Your task to perform on an android device: open app "File Manager" (install if not already installed) Image 0: 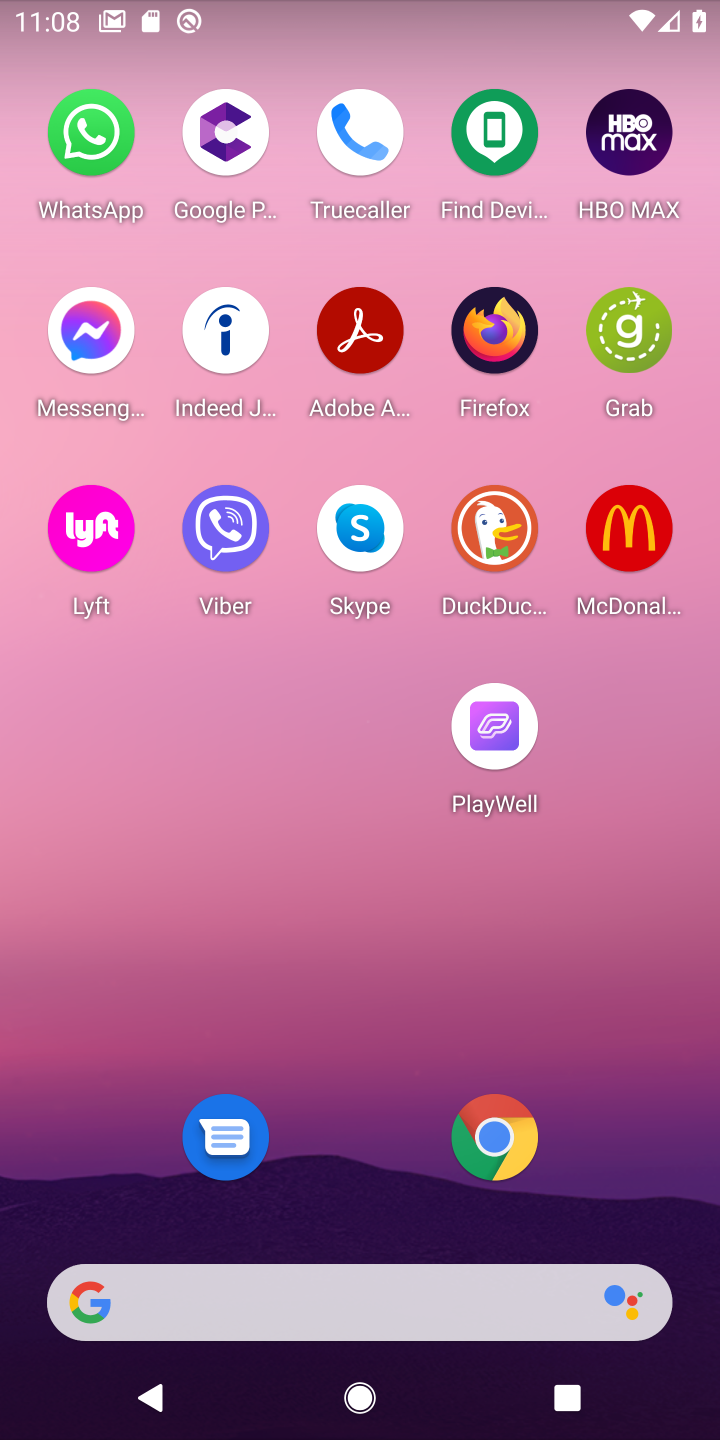
Step 0: drag from (344, 1201) to (292, 453)
Your task to perform on an android device: open app "File Manager" (install if not already installed) Image 1: 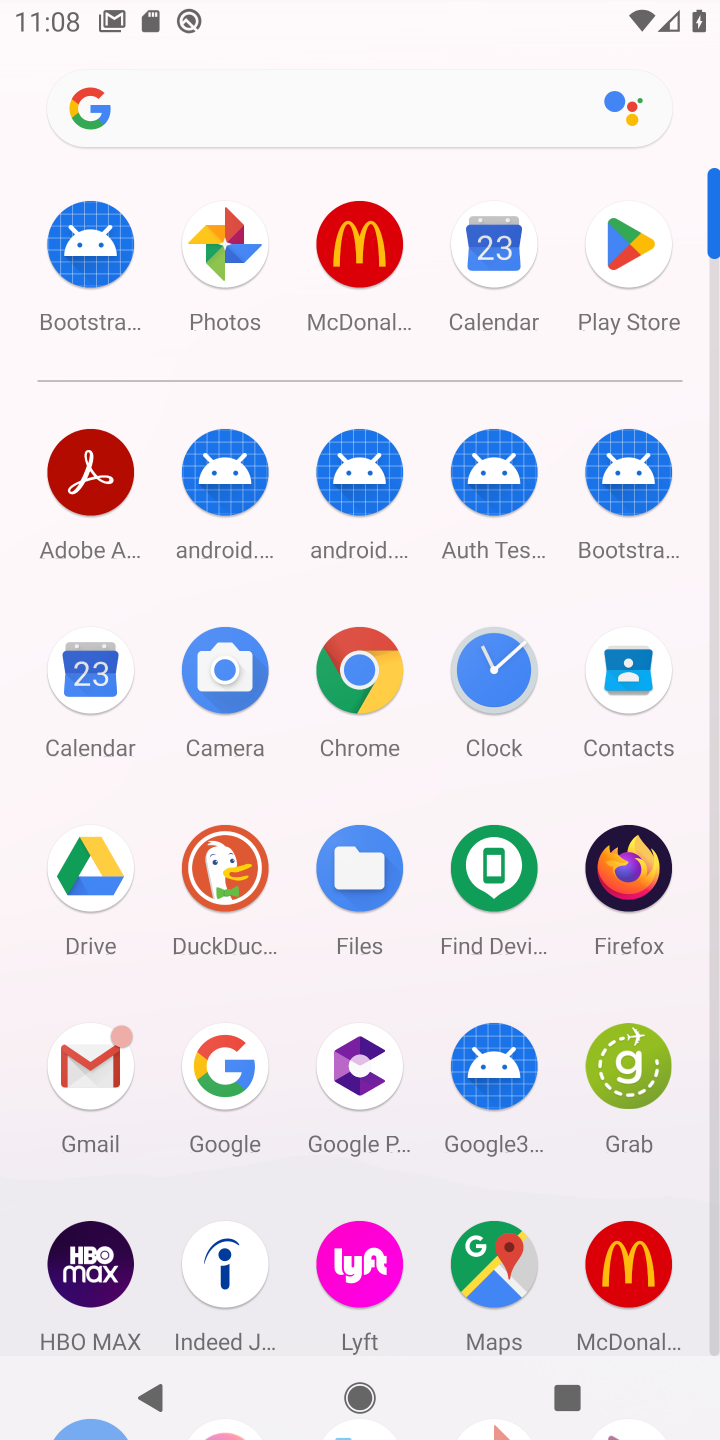
Step 1: click (639, 260)
Your task to perform on an android device: open app "File Manager" (install if not already installed) Image 2: 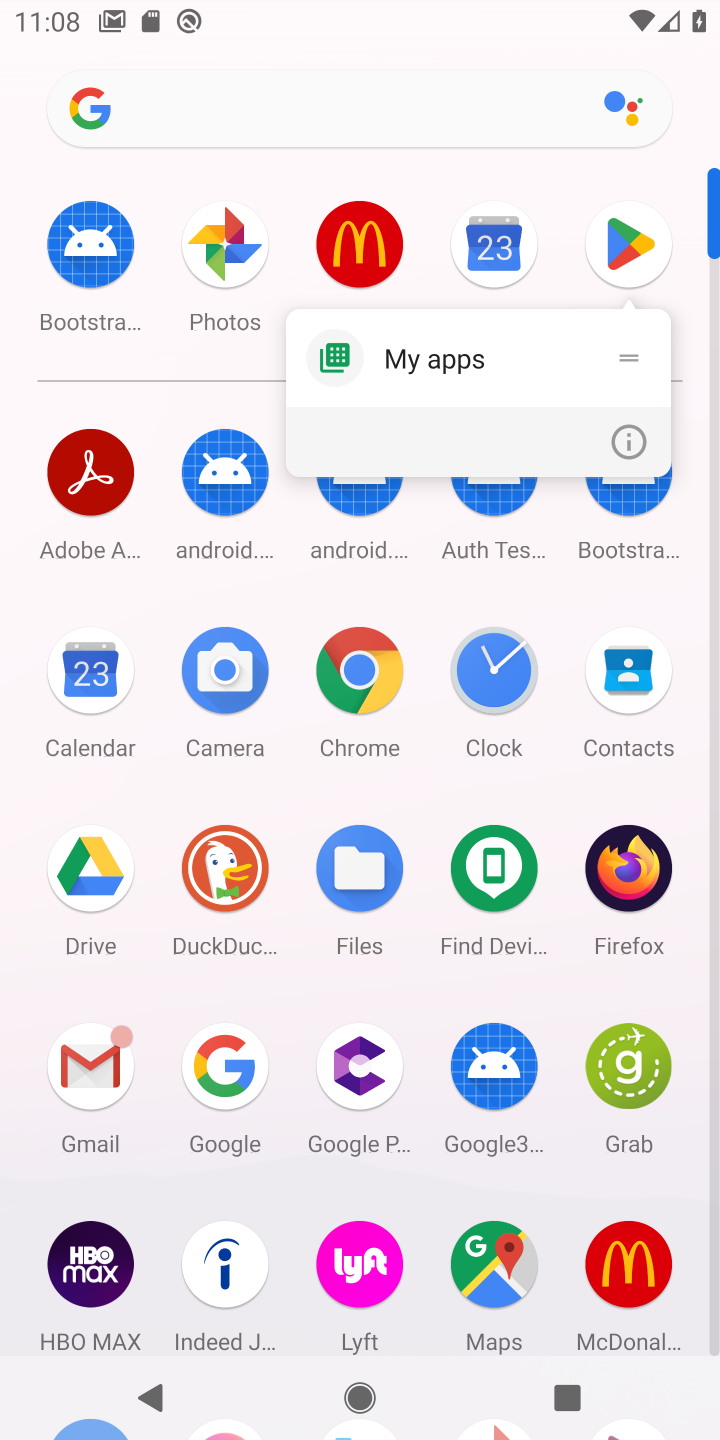
Step 2: click (617, 238)
Your task to perform on an android device: open app "File Manager" (install if not already installed) Image 3: 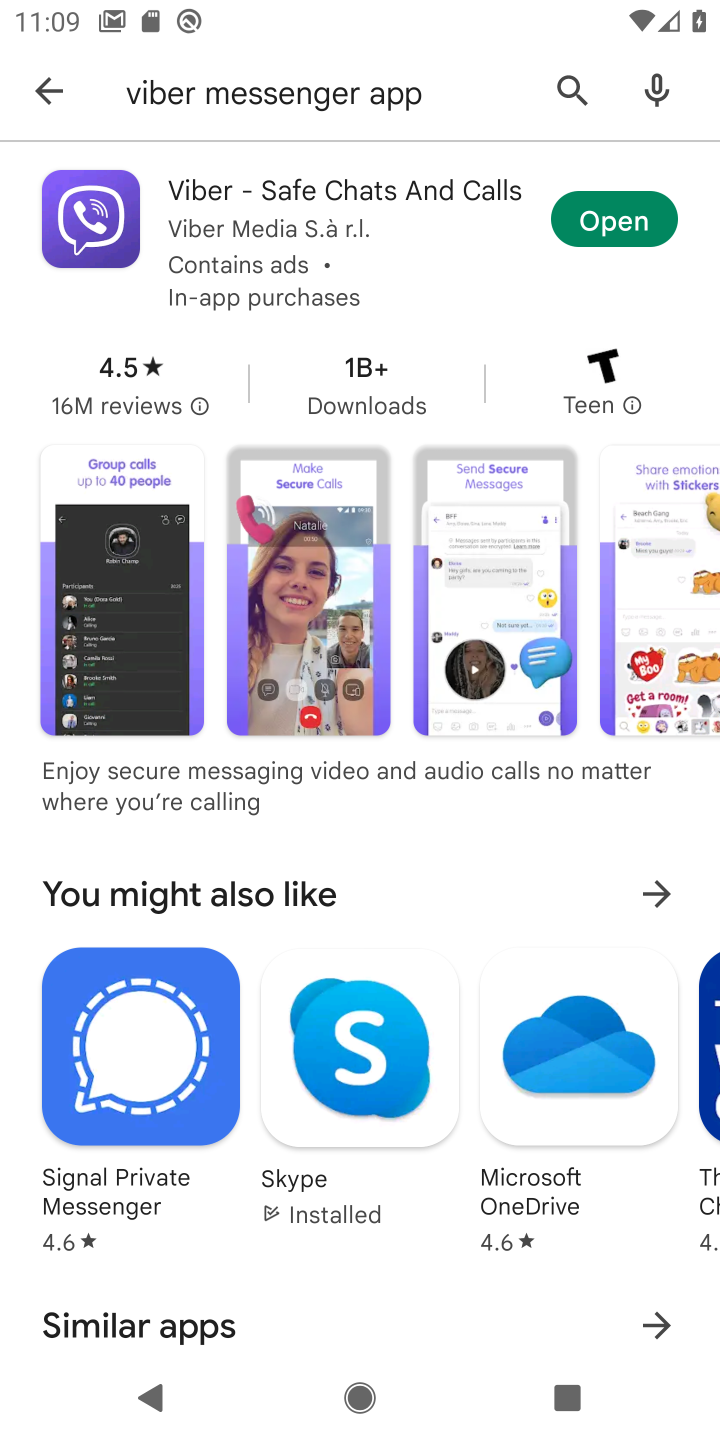
Step 3: click (274, 88)
Your task to perform on an android device: open app "File Manager" (install if not already installed) Image 4: 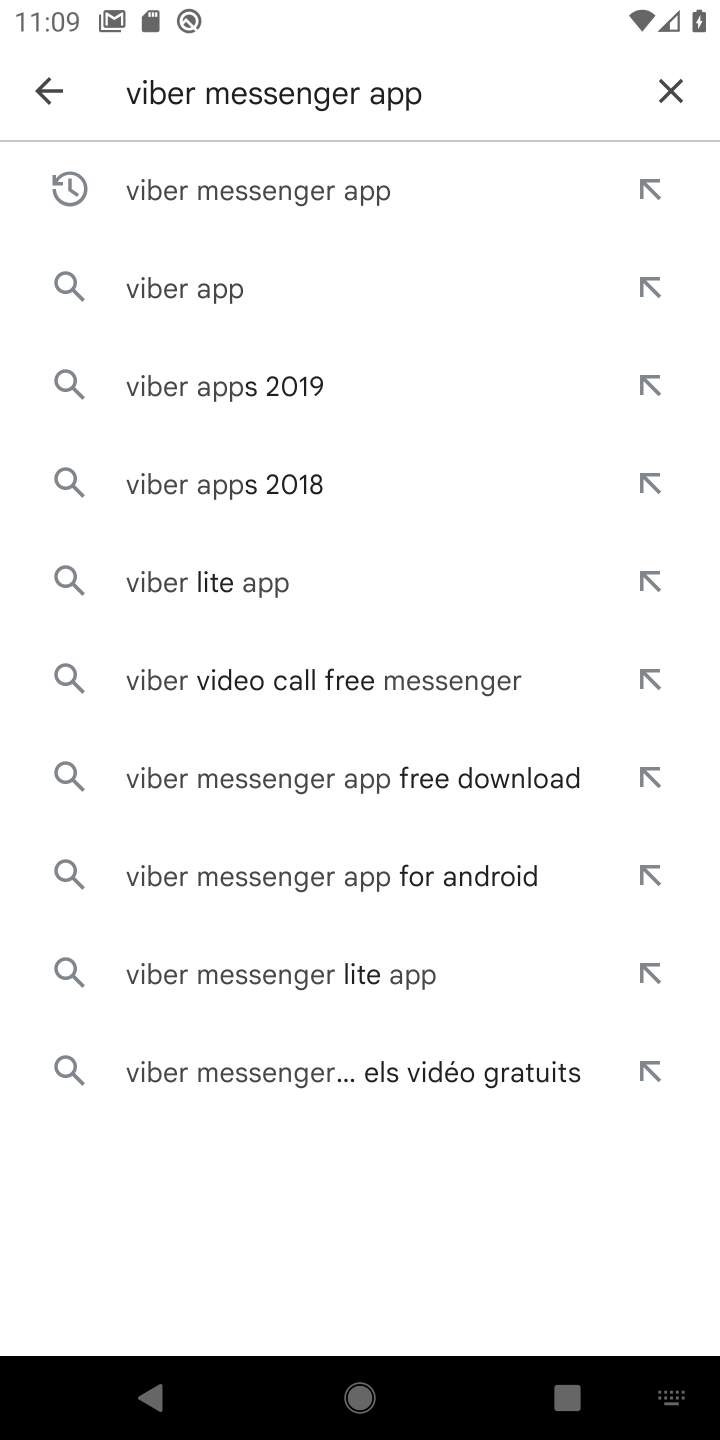
Step 4: click (667, 92)
Your task to perform on an android device: open app "File Manager" (install if not already installed) Image 5: 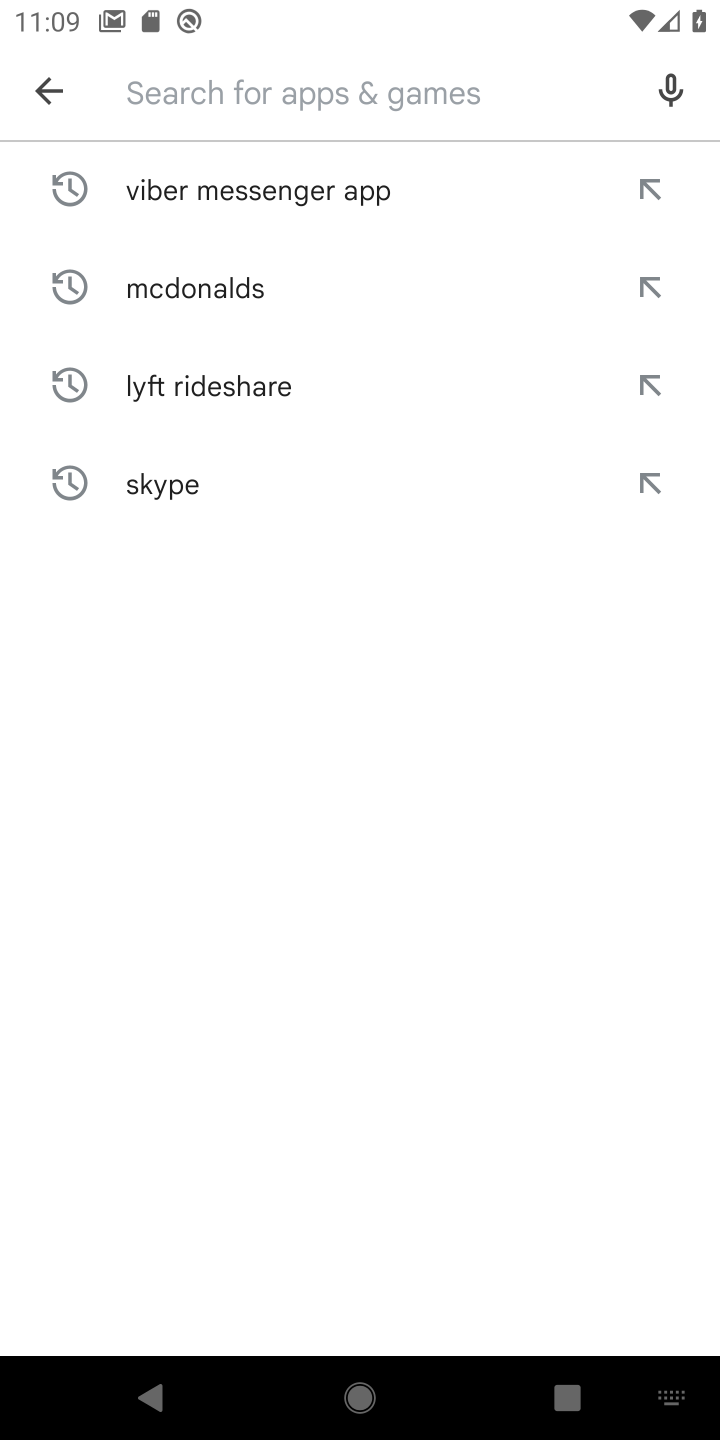
Step 5: type "file manager"
Your task to perform on an android device: open app "File Manager" (install if not already installed) Image 6: 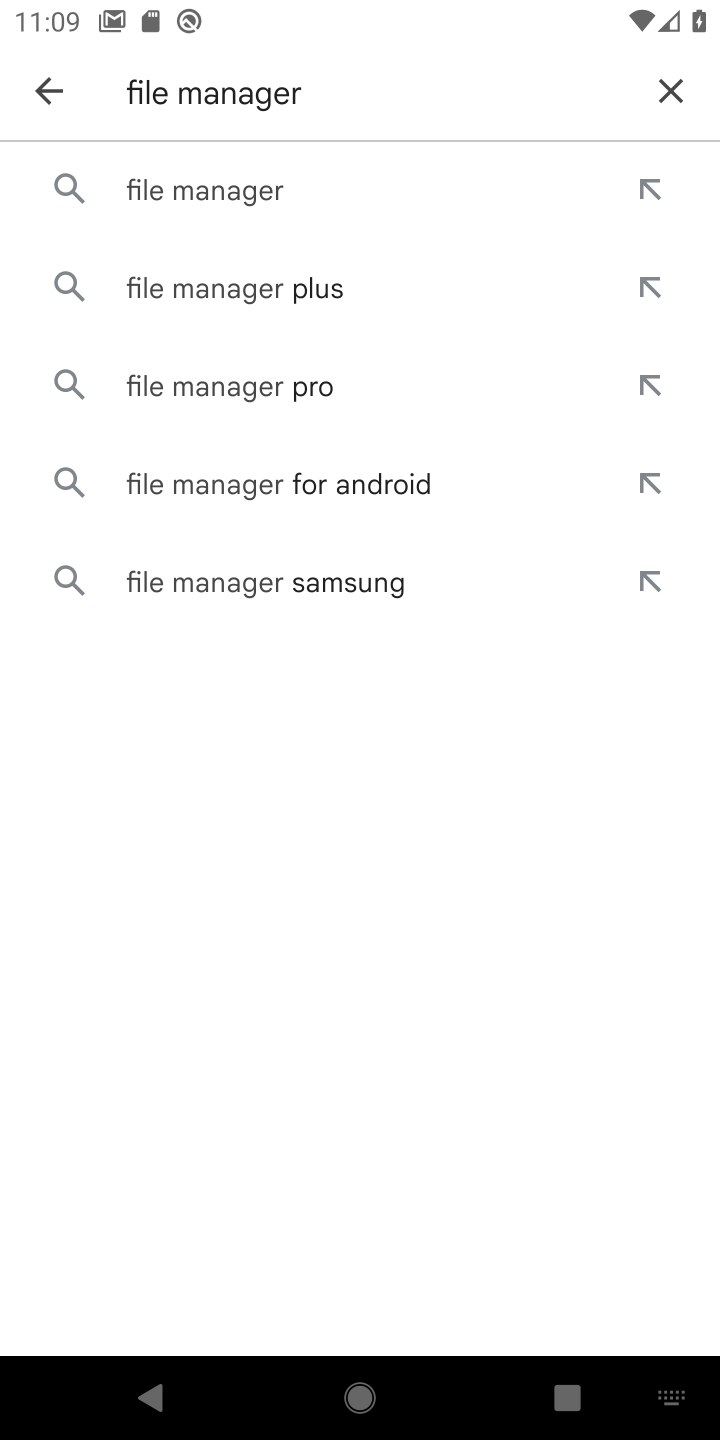
Step 6: click (296, 187)
Your task to perform on an android device: open app "File Manager" (install if not already installed) Image 7: 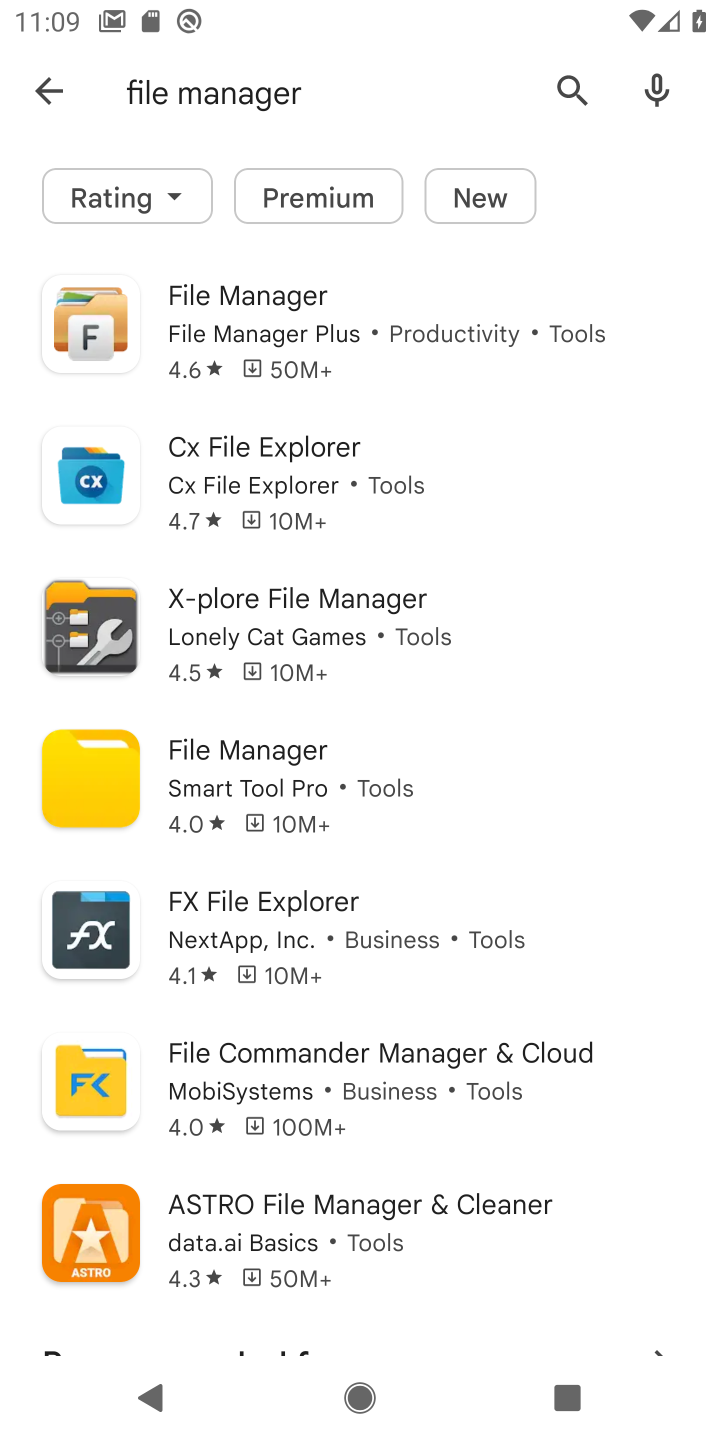
Step 7: click (289, 322)
Your task to perform on an android device: open app "File Manager" (install if not already installed) Image 8: 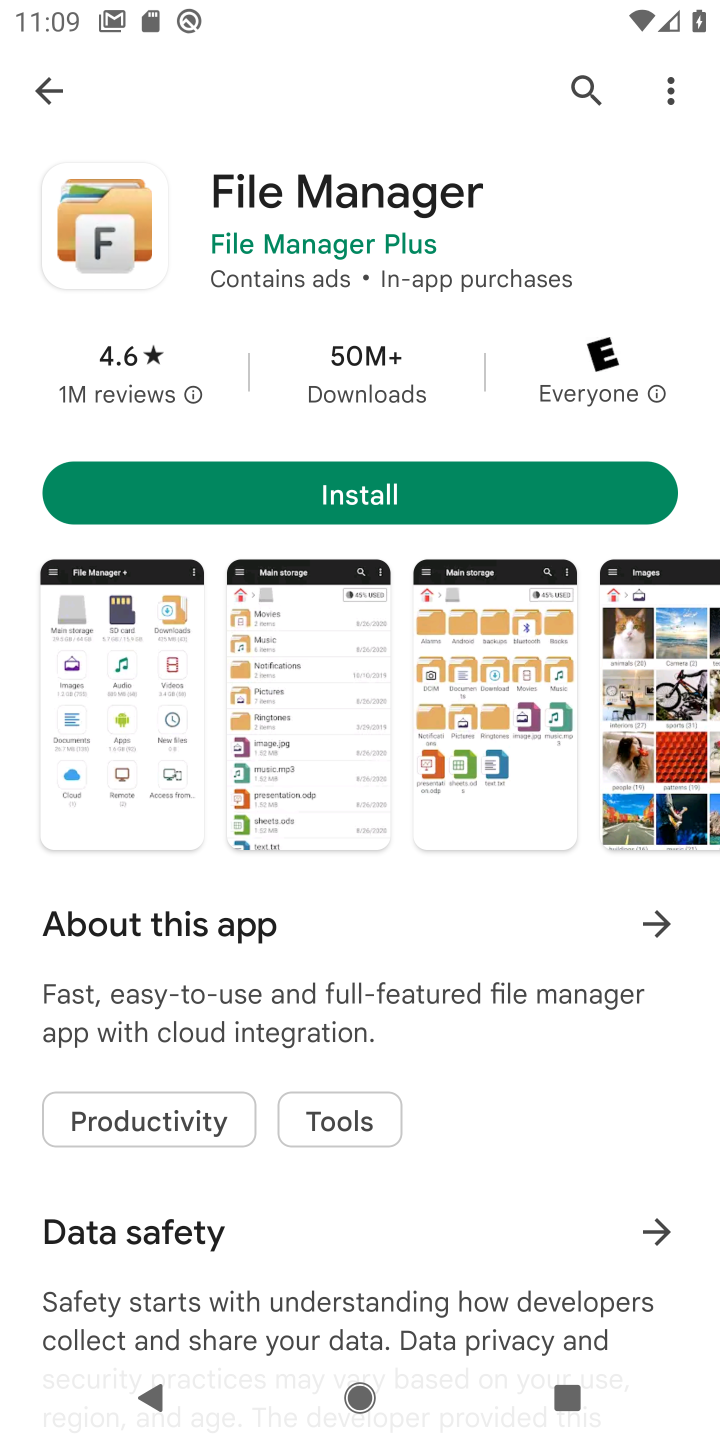
Step 8: task complete